Your task to perform on an android device: What's the weather going to be tomorrow? Image 0: 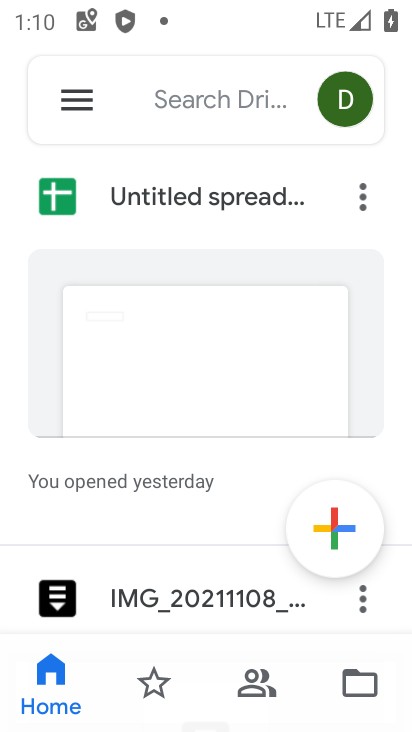
Step 0: press home button
Your task to perform on an android device: What's the weather going to be tomorrow? Image 1: 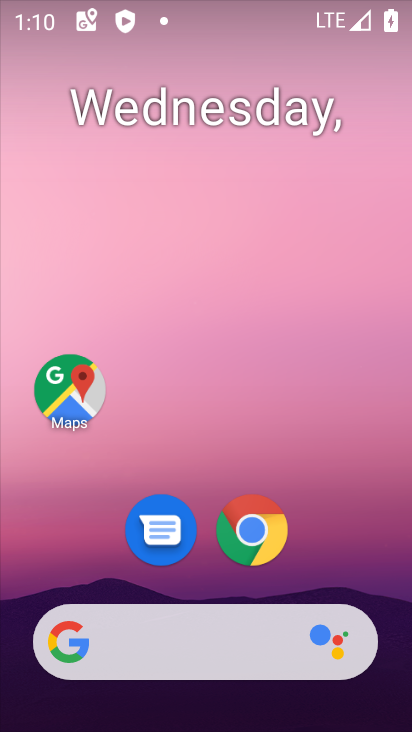
Step 1: drag from (363, 587) to (341, 204)
Your task to perform on an android device: What's the weather going to be tomorrow? Image 2: 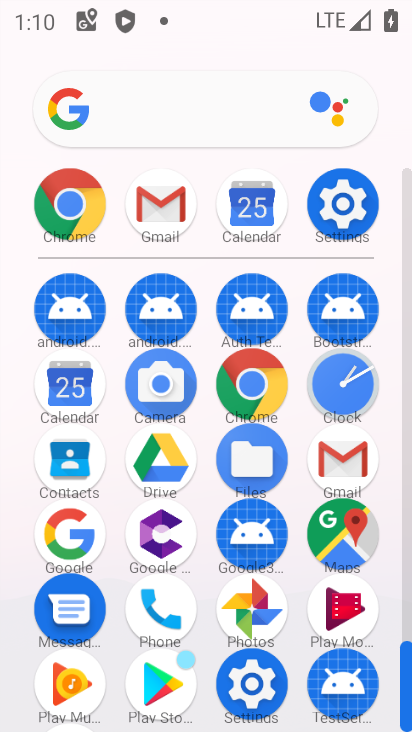
Step 2: click (258, 391)
Your task to perform on an android device: What's the weather going to be tomorrow? Image 3: 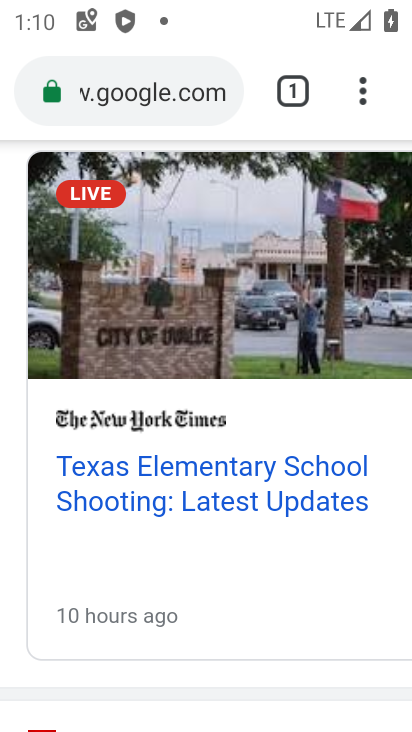
Step 3: click (161, 85)
Your task to perform on an android device: What's the weather going to be tomorrow? Image 4: 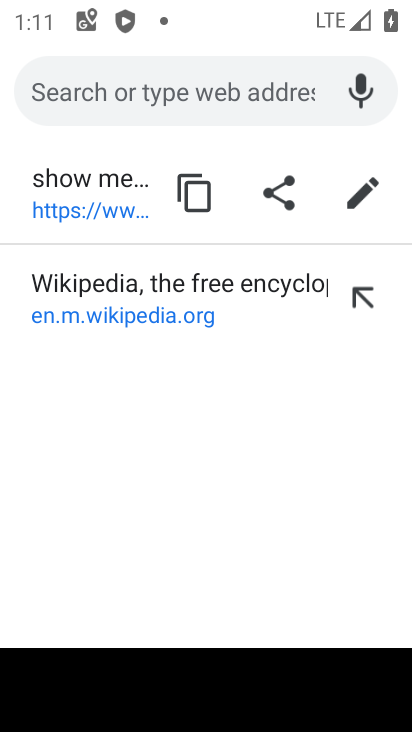
Step 4: type "what's the weather going to be tomorrow"
Your task to perform on an android device: What's the weather going to be tomorrow? Image 5: 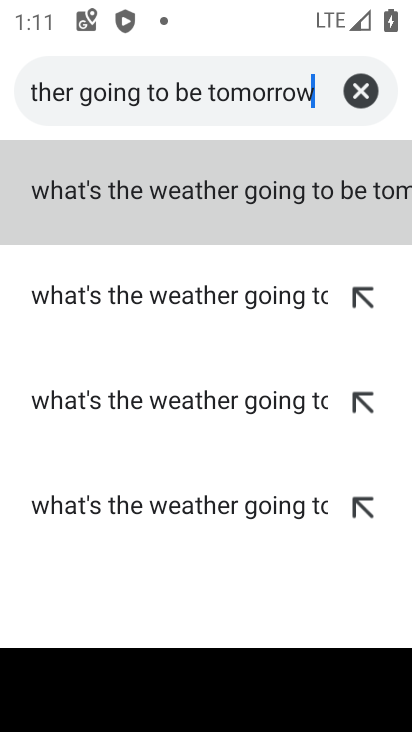
Step 5: click (133, 215)
Your task to perform on an android device: What's the weather going to be tomorrow? Image 6: 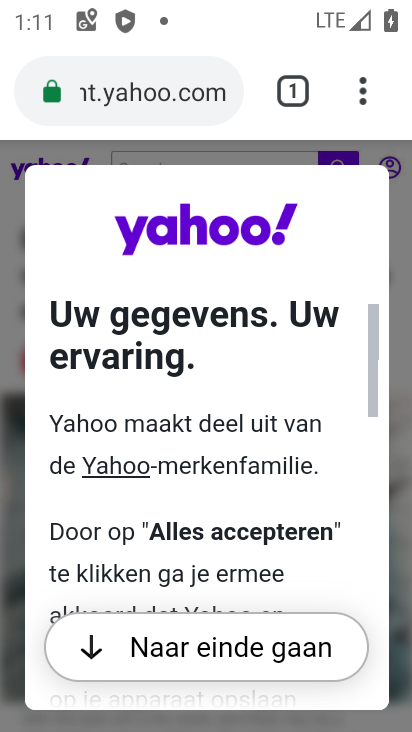
Step 6: task complete